Your task to perform on an android device: change the clock display to digital Image 0: 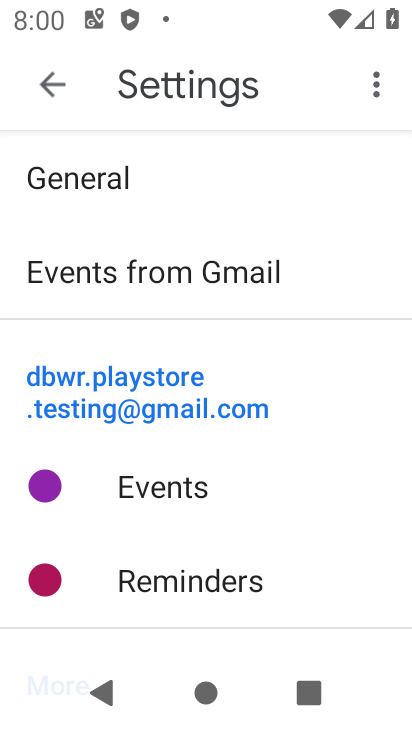
Step 0: press home button
Your task to perform on an android device: change the clock display to digital Image 1: 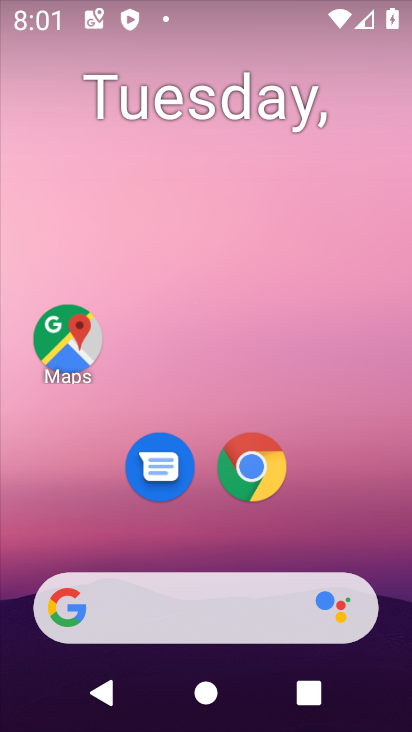
Step 1: drag from (387, 541) to (347, 228)
Your task to perform on an android device: change the clock display to digital Image 2: 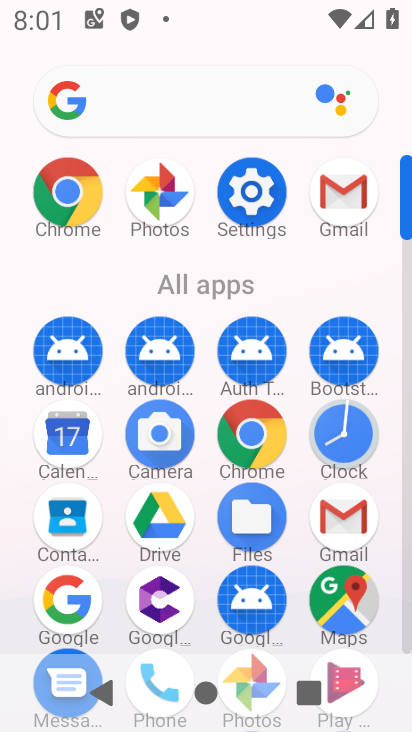
Step 2: click (323, 428)
Your task to perform on an android device: change the clock display to digital Image 3: 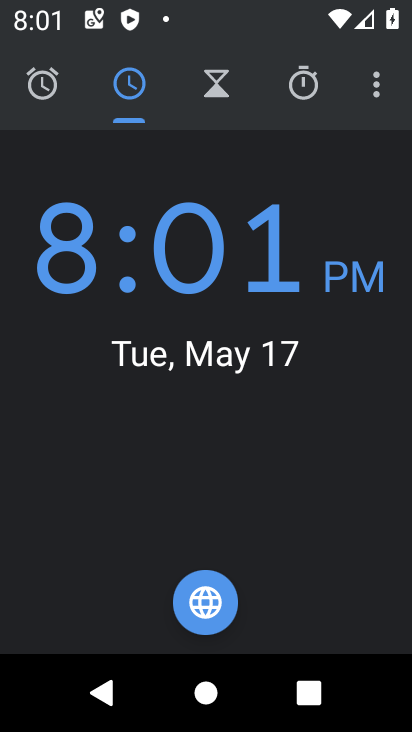
Step 3: click (390, 86)
Your task to perform on an android device: change the clock display to digital Image 4: 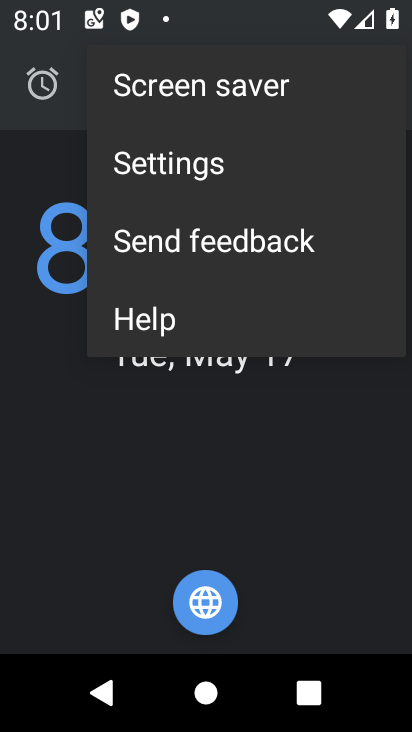
Step 4: click (329, 166)
Your task to perform on an android device: change the clock display to digital Image 5: 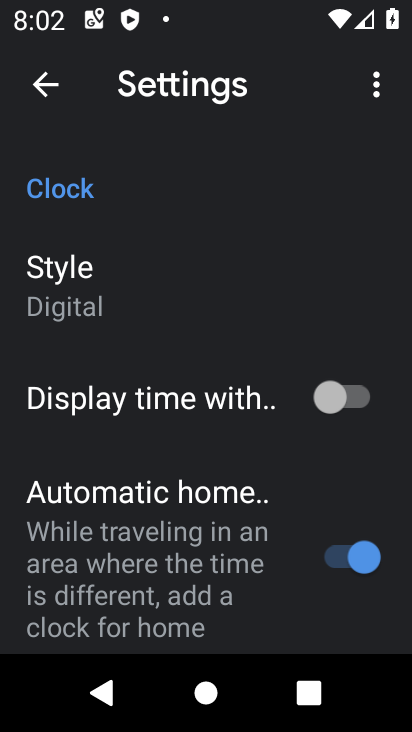
Step 5: click (215, 303)
Your task to perform on an android device: change the clock display to digital Image 6: 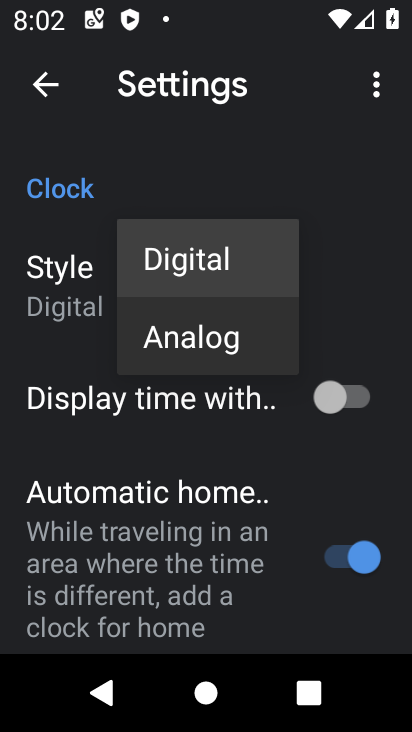
Step 6: task complete